Your task to perform on an android device: Go to privacy settings Image 0: 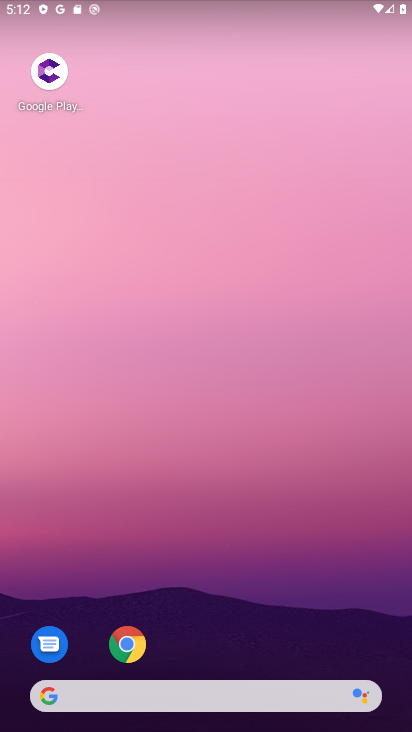
Step 0: drag from (322, 603) to (244, 88)
Your task to perform on an android device: Go to privacy settings Image 1: 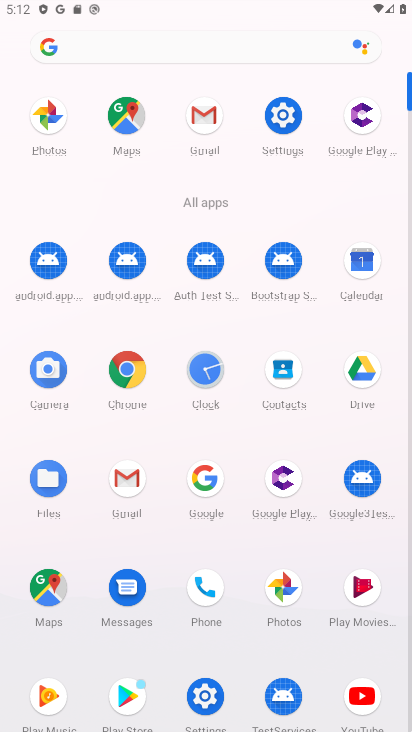
Step 1: click (276, 117)
Your task to perform on an android device: Go to privacy settings Image 2: 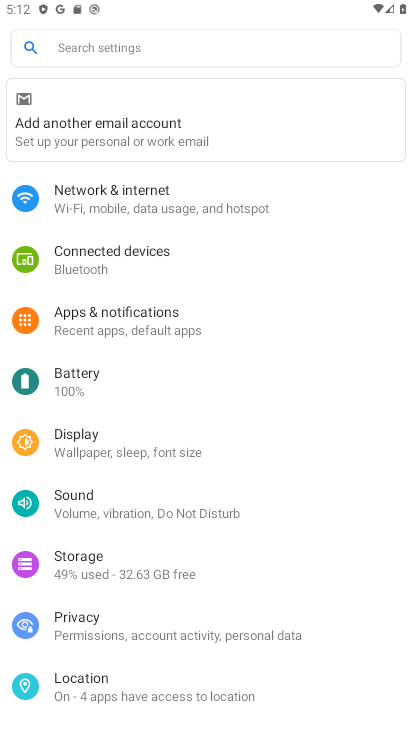
Step 2: click (163, 628)
Your task to perform on an android device: Go to privacy settings Image 3: 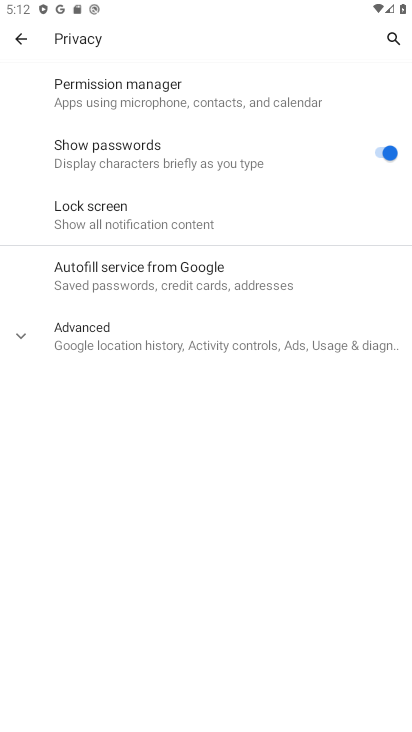
Step 3: task complete